Your task to perform on an android device: Open the phone app and click the voicemail tab. Image 0: 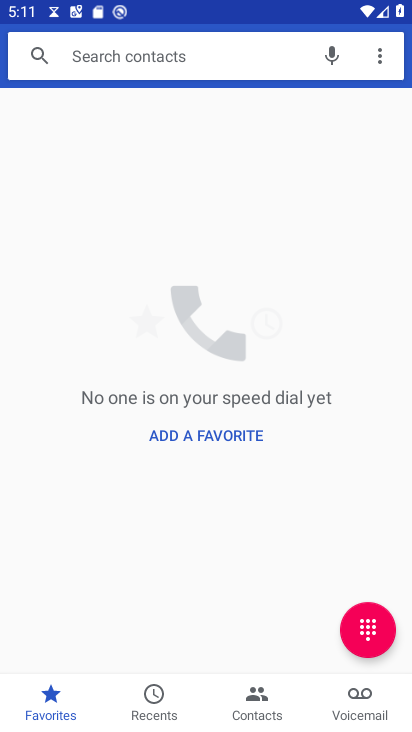
Step 0: drag from (329, 703) to (407, 442)
Your task to perform on an android device: Open the phone app and click the voicemail tab. Image 1: 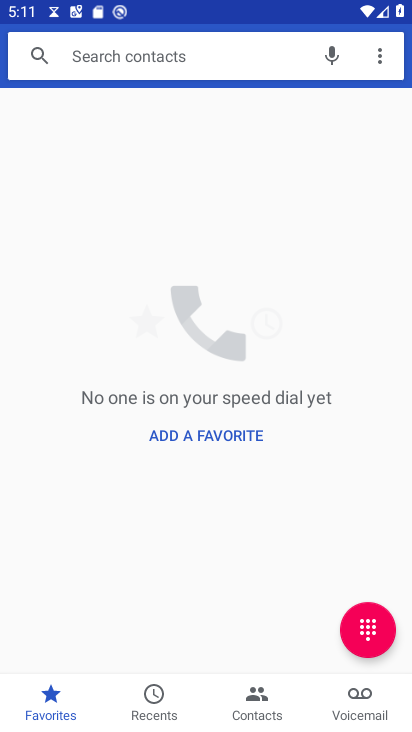
Step 1: press home button
Your task to perform on an android device: Open the phone app and click the voicemail tab. Image 2: 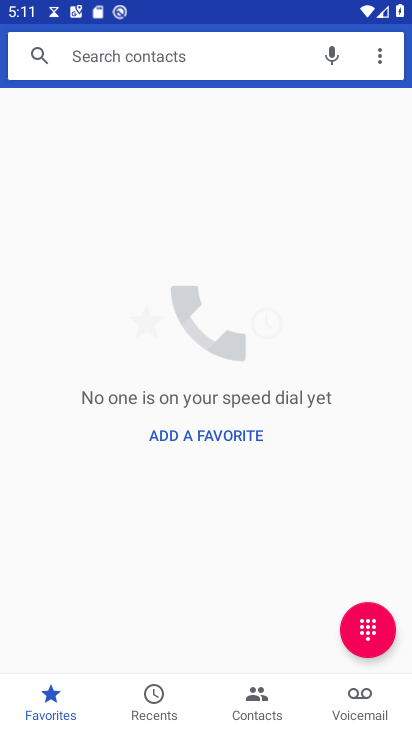
Step 2: drag from (407, 442) to (407, 544)
Your task to perform on an android device: Open the phone app and click the voicemail tab. Image 3: 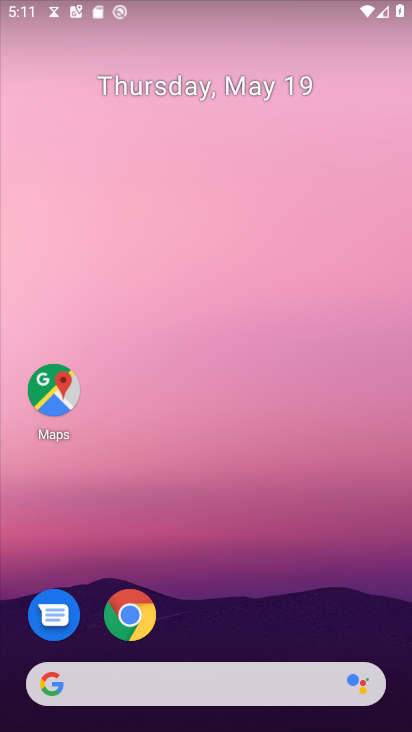
Step 3: drag from (272, 598) to (272, 82)
Your task to perform on an android device: Open the phone app and click the voicemail tab. Image 4: 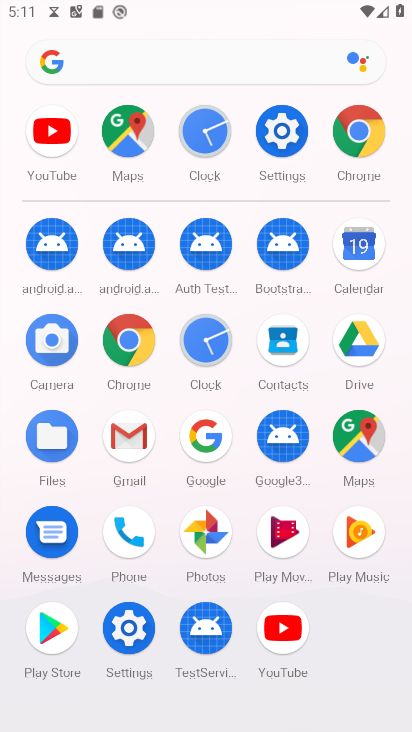
Step 4: click (131, 534)
Your task to perform on an android device: Open the phone app and click the voicemail tab. Image 5: 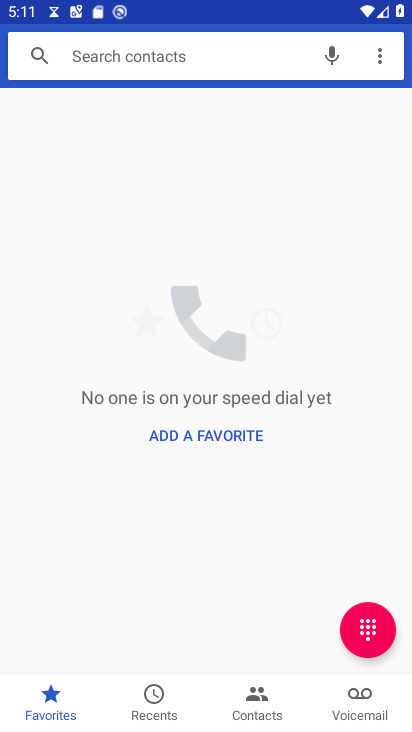
Step 5: click (353, 710)
Your task to perform on an android device: Open the phone app and click the voicemail tab. Image 6: 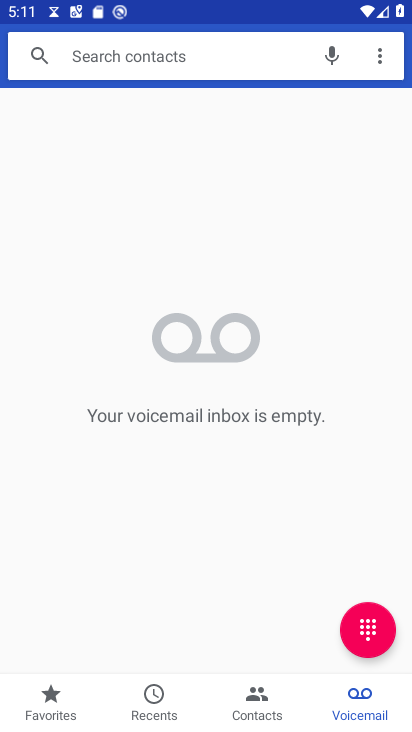
Step 6: task complete